Your task to perform on an android device: Is it going to rain this weekend? Image 0: 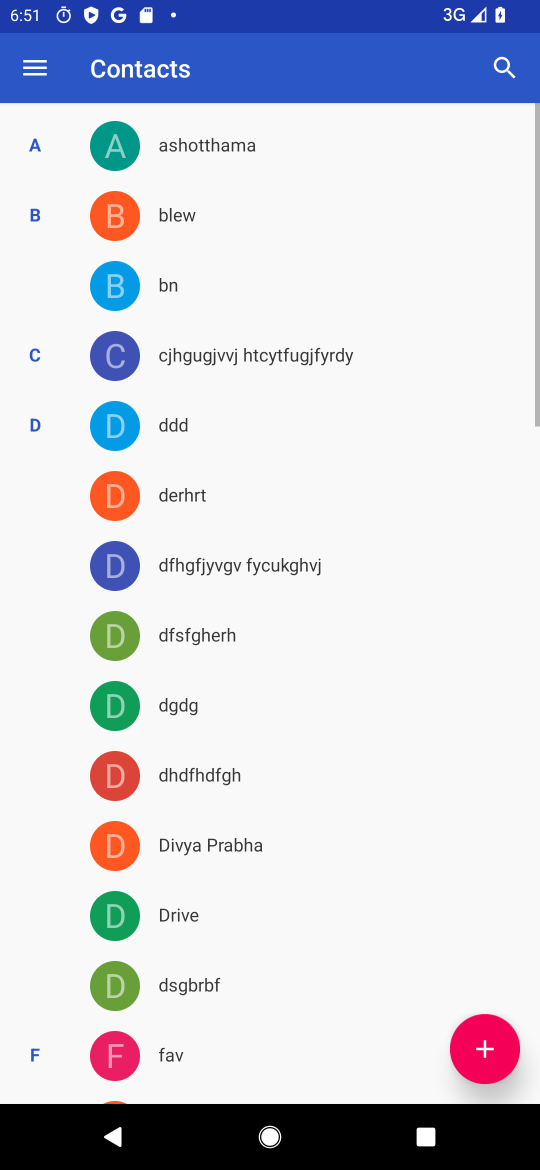
Step 0: press home button
Your task to perform on an android device: Is it going to rain this weekend? Image 1: 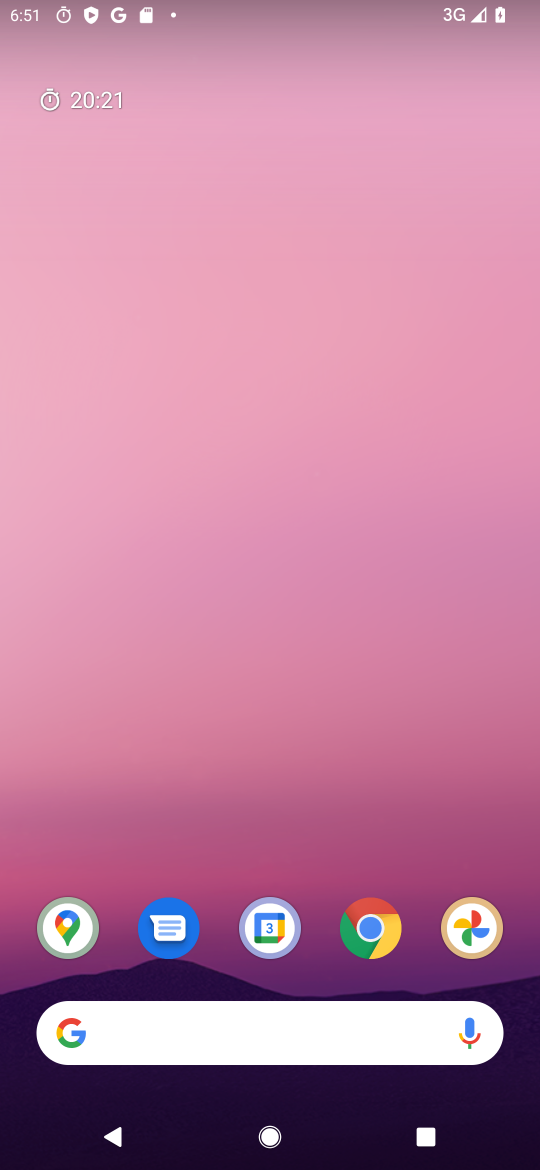
Step 1: drag from (332, 819) to (315, 150)
Your task to perform on an android device: Is it going to rain this weekend? Image 2: 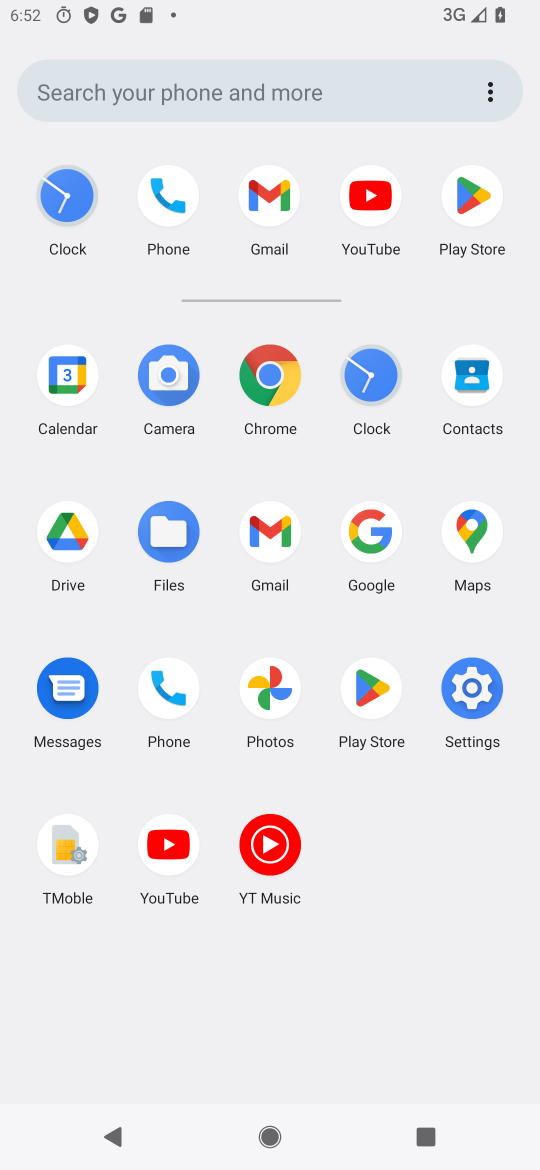
Step 2: press home button
Your task to perform on an android device: Is it going to rain this weekend? Image 3: 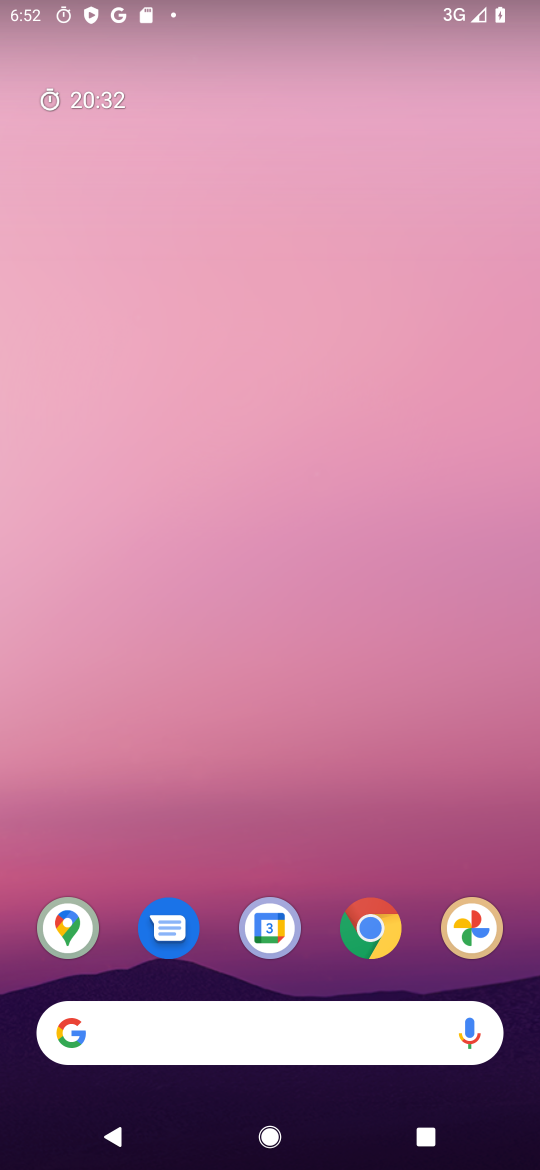
Step 3: click (335, 1035)
Your task to perform on an android device: Is it going to rain this weekend? Image 4: 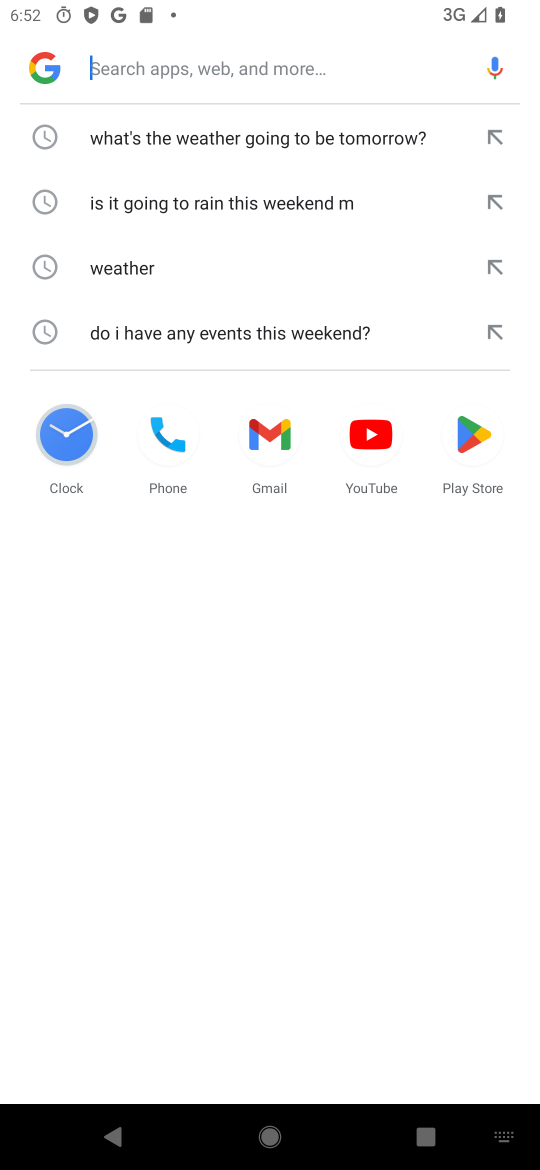
Step 4: click (312, 71)
Your task to perform on an android device: Is it going to rain this weekend? Image 5: 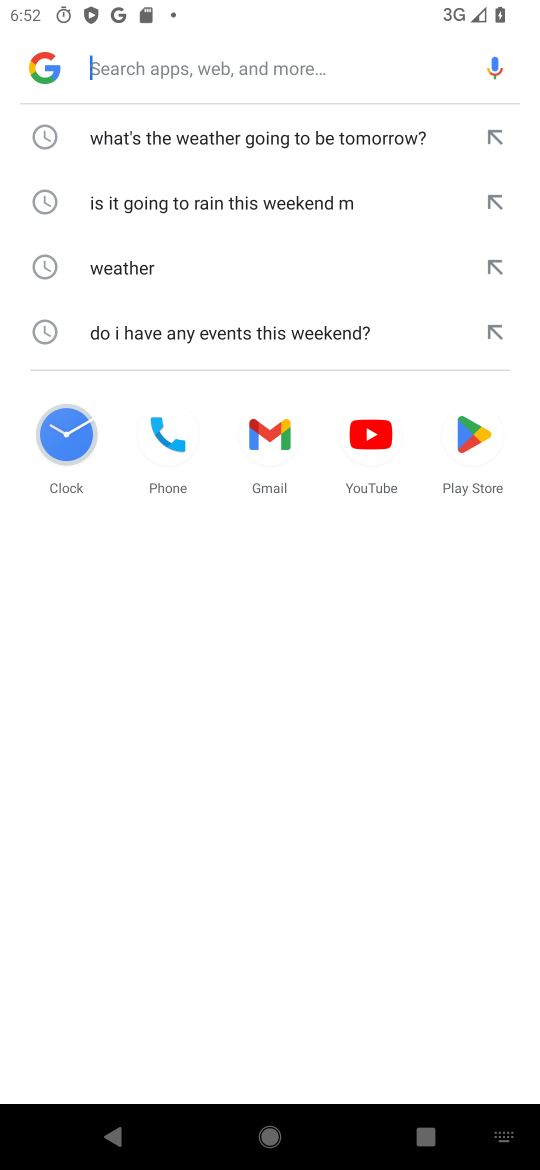
Step 5: click (205, 264)
Your task to perform on an android device: Is it going to rain this weekend? Image 6: 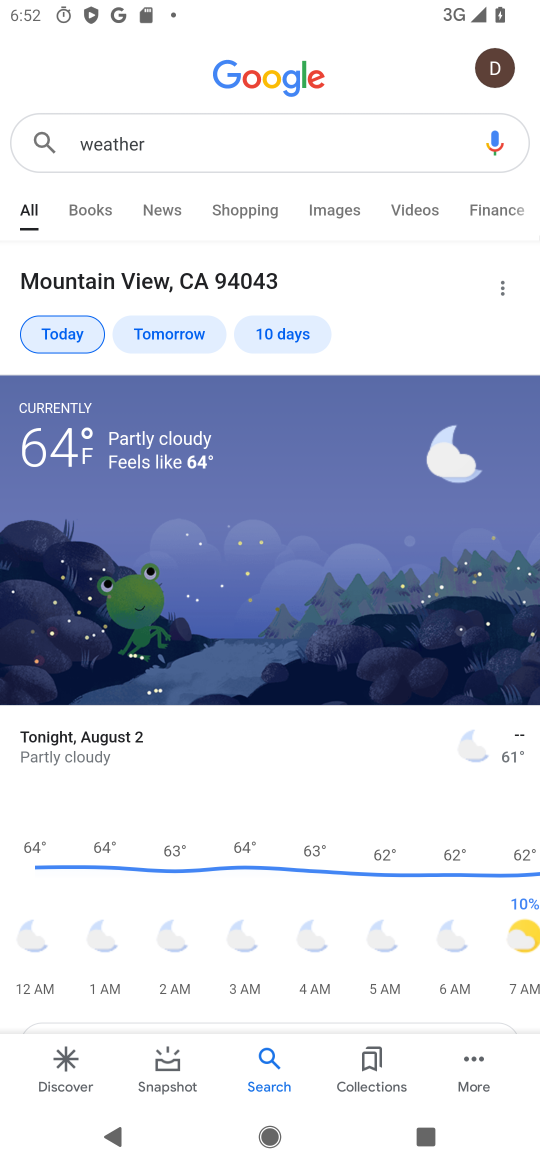
Step 6: click (274, 332)
Your task to perform on an android device: Is it going to rain this weekend? Image 7: 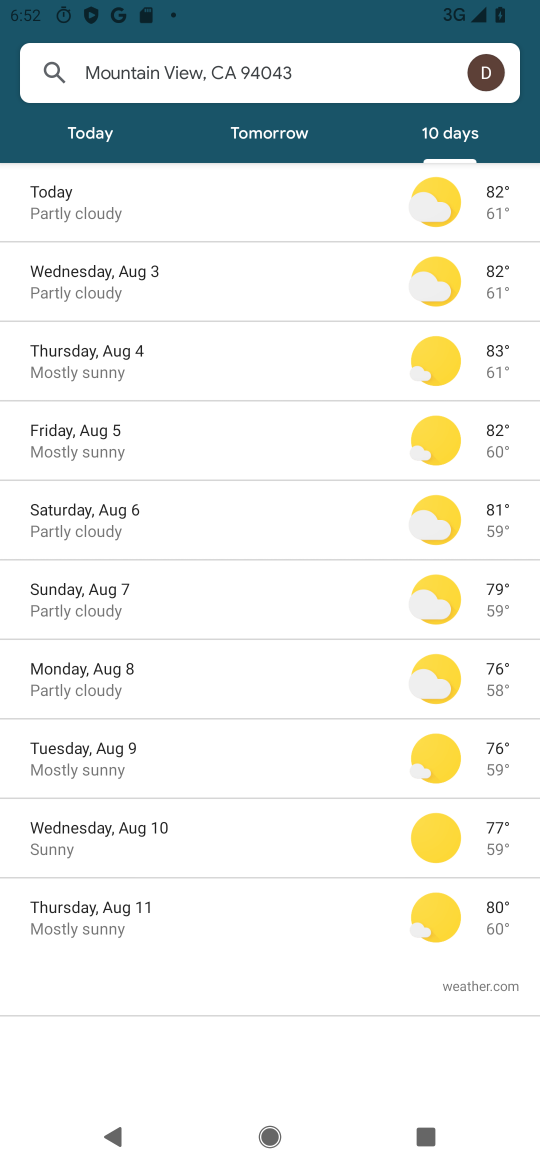
Step 7: click (182, 509)
Your task to perform on an android device: Is it going to rain this weekend? Image 8: 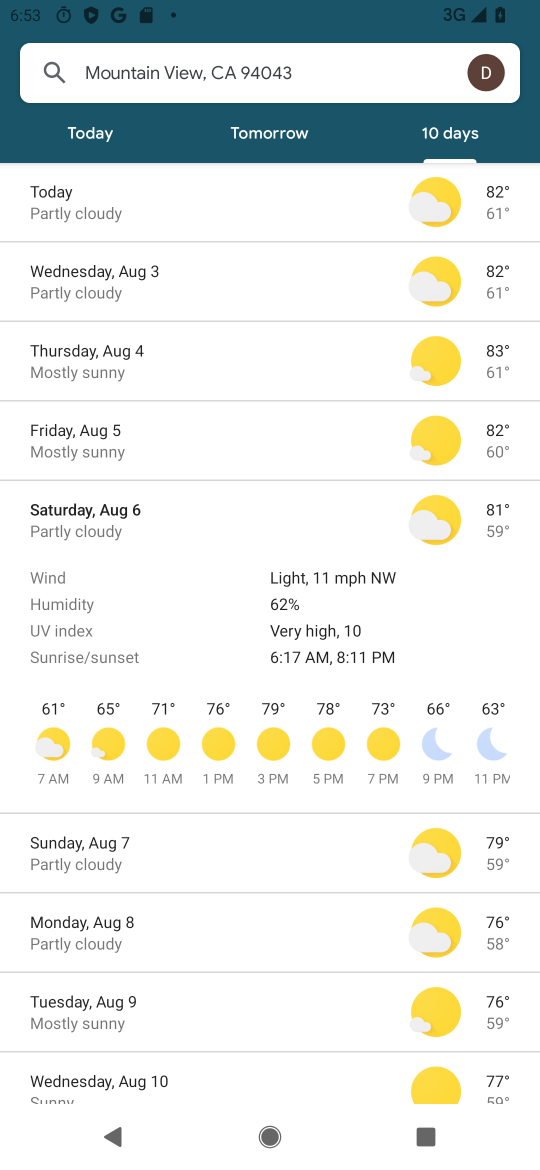
Step 8: task complete